Your task to perform on an android device: Open display settings Image 0: 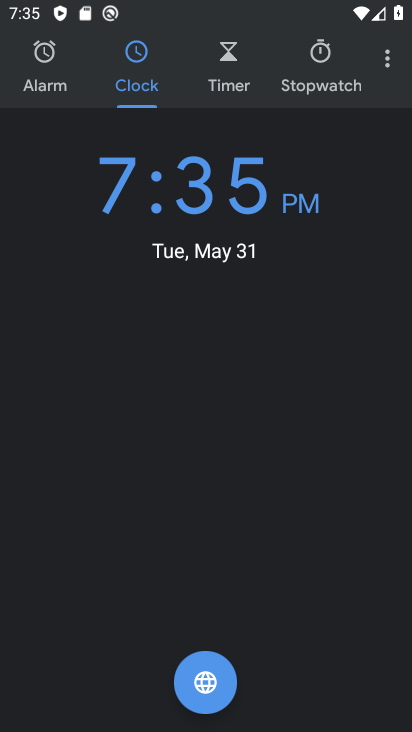
Step 0: press home button
Your task to perform on an android device: Open display settings Image 1: 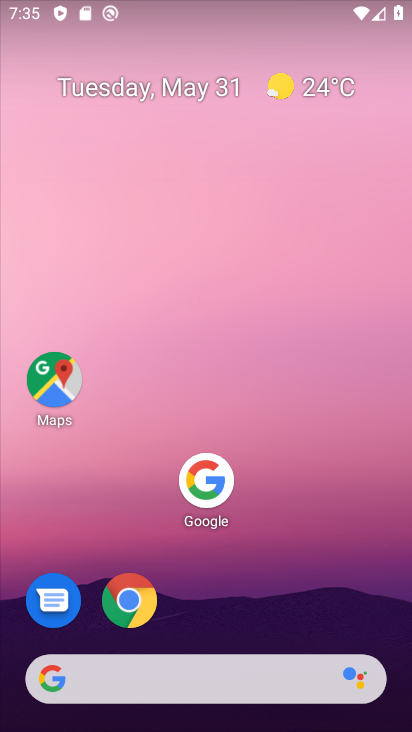
Step 1: drag from (170, 673) to (299, 25)
Your task to perform on an android device: Open display settings Image 2: 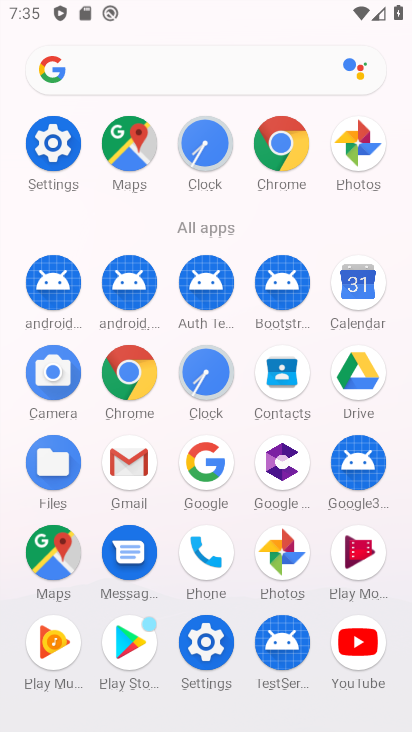
Step 2: click (58, 144)
Your task to perform on an android device: Open display settings Image 3: 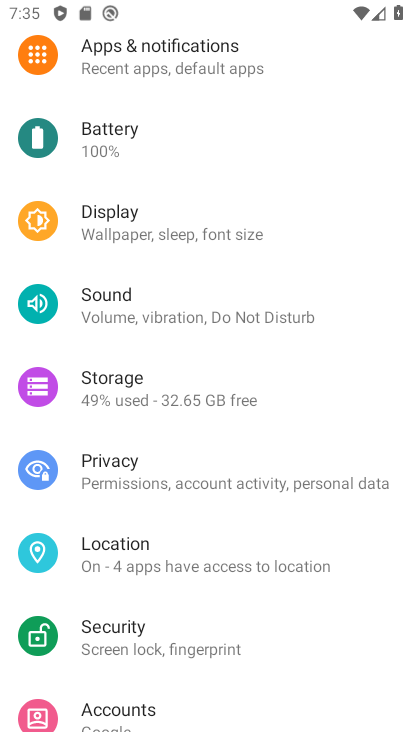
Step 3: click (106, 227)
Your task to perform on an android device: Open display settings Image 4: 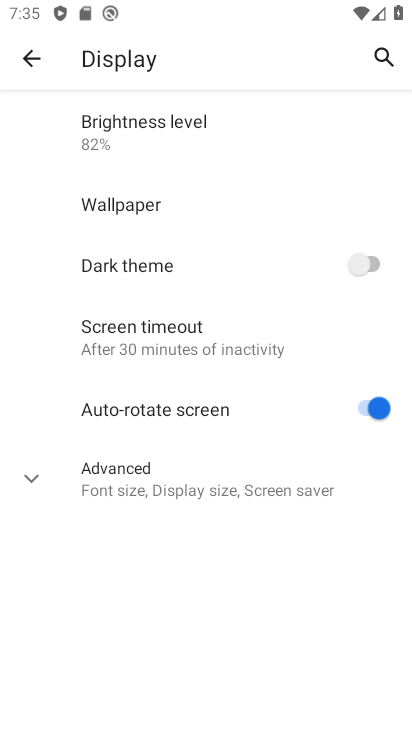
Step 4: click (34, 471)
Your task to perform on an android device: Open display settings Image 5: 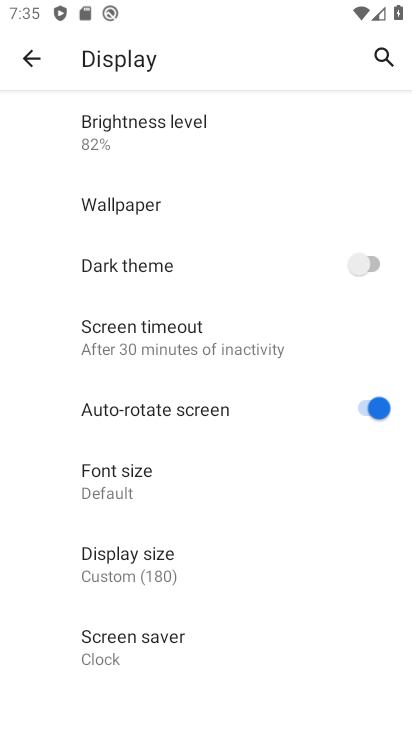
Step 5: task complete